Your task to perform on an android device: open app "DoorDash - Food Delivery" (install if not already installed), go to login, and select forgot password Image 0: 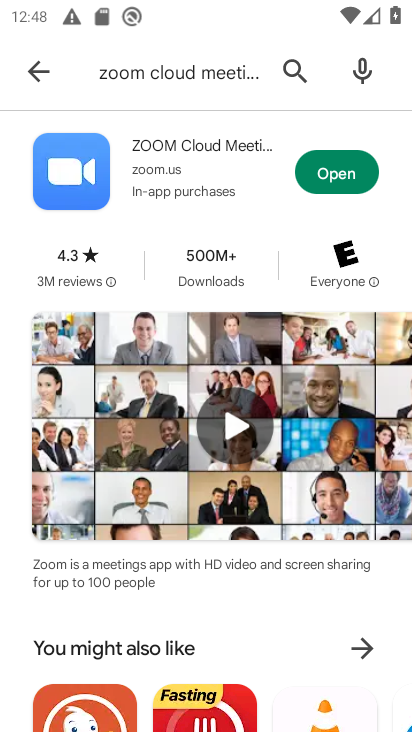
Step 0: click (285, 59)
Your task to perform on an android device: open app "DoorDash - Food Delivery" (install if not already installed), go to login, and select forgot password Image 1: 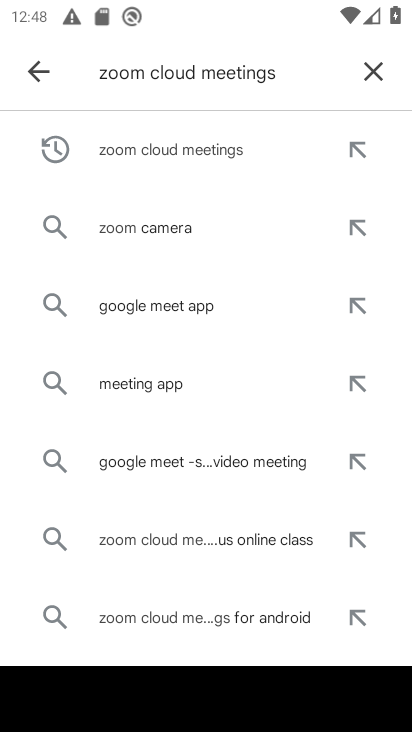
Step 1: click (369, 64)
Your task to perform on an android device: open app "DoorDash - Food Delivery" (install if not already installed), go to login, and select forgot password Image 2: 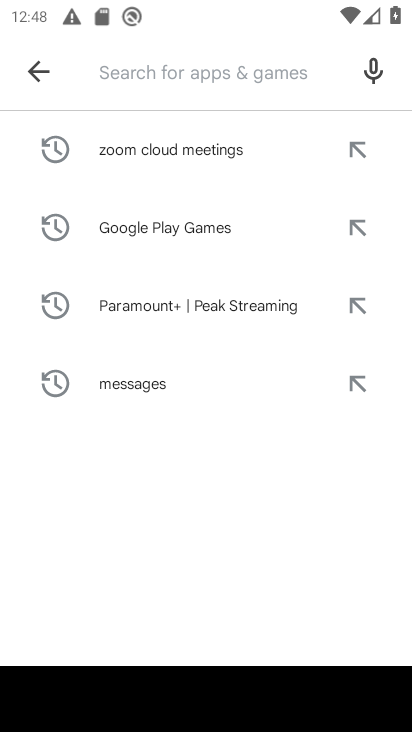
Step 2: type "DoorDash - Food Delivery"
Your task to perform on an android device: open app "DoorDash - Food Delivery" (install if not already installed), go to login, and select forgot password Image 3: 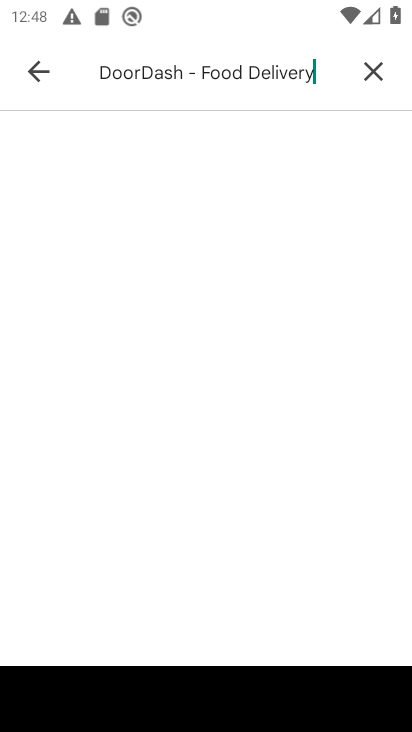
Step 3: type ""
Your task to perform on an android device: open app "DoorDash - Food Delivery" (install if not already installed), go to login, and select forgot password Image 4: 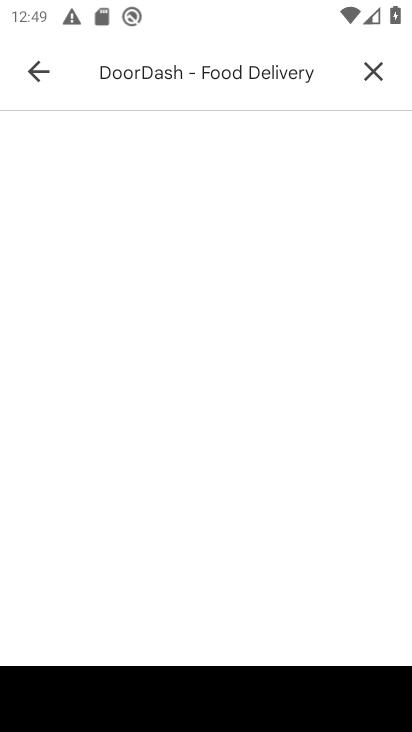
Step 4: task complete